Your task to perform on an android device: Go to accessibility settings Image 0: 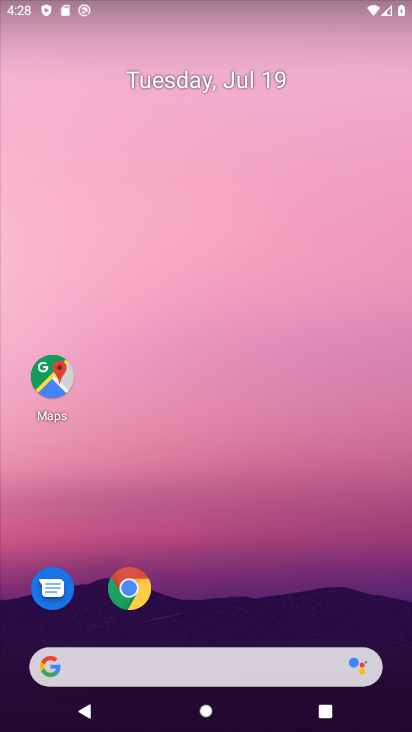
Step 0: drag from (380, 624) to (323, 100)
Your task to perform on an android device: Go to accessibility settings Image 1: 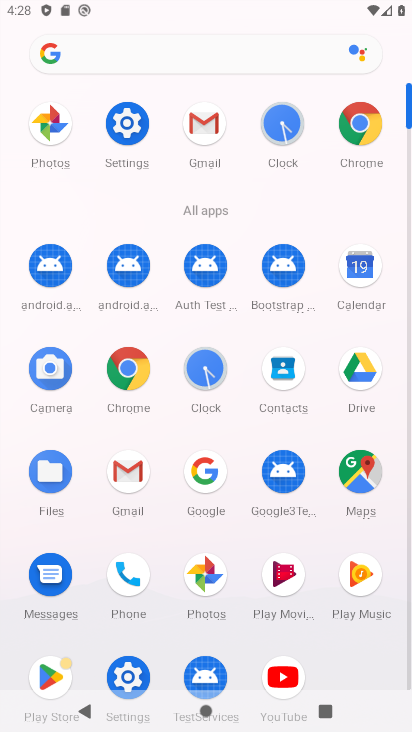
Step 1: click (129, 678)
Your task to perform on an android device: Go to accessibility settings Image 2: 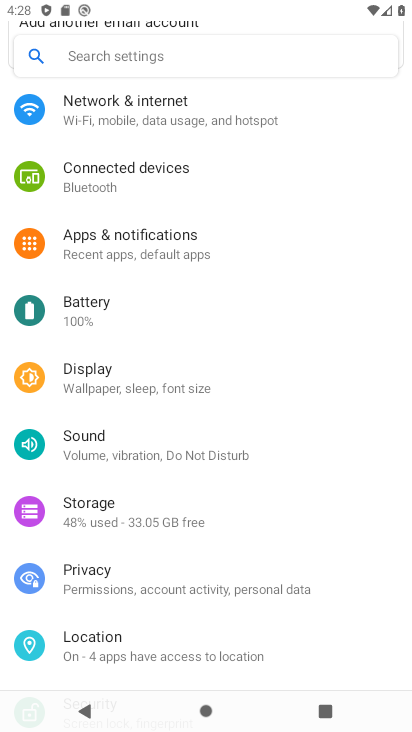
Step 2: drag from (333, 615) to (340, 211)
Your task to perform on an android device: Go to accessibility settings Image 3: 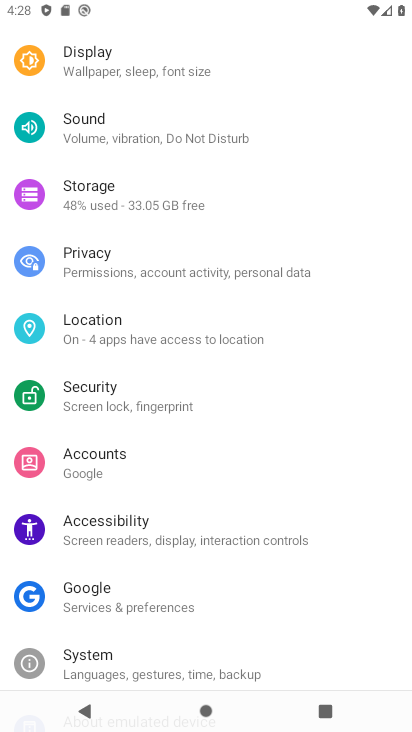
Step 3: click (88, 522)
Your task to perform on an android device: Go to accessibility settings Image 4: 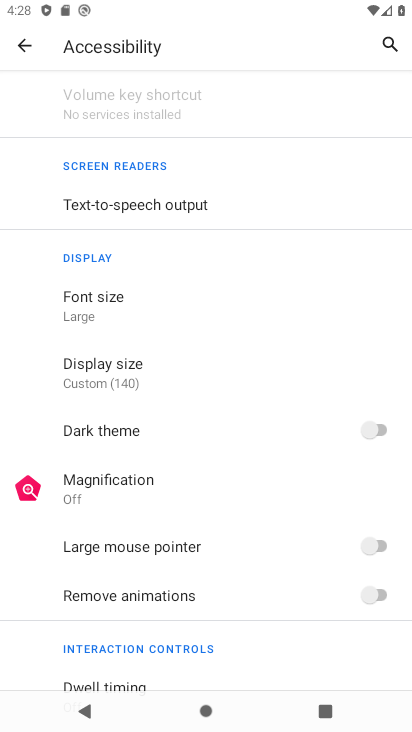
Step 4: task complete